Your task to perform on an android device: What's the weather going to be tomorrow? Image 0: 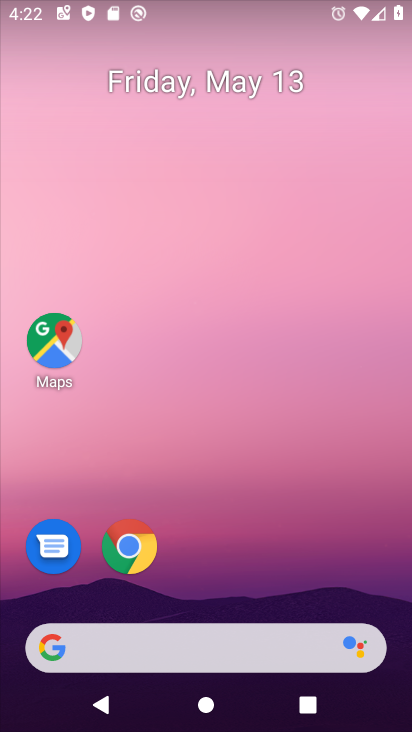
Step 0: click (179, 637)
Your task to perform on an android device: What's the weather going to be tomorrow? Image 1: 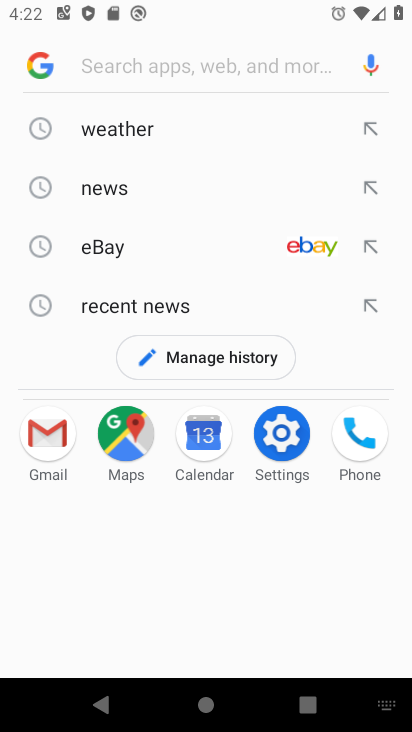
Step 1: click (158, 137)
Your task to perform on an android device: What's the weather going to be tomorrow? Image 2: 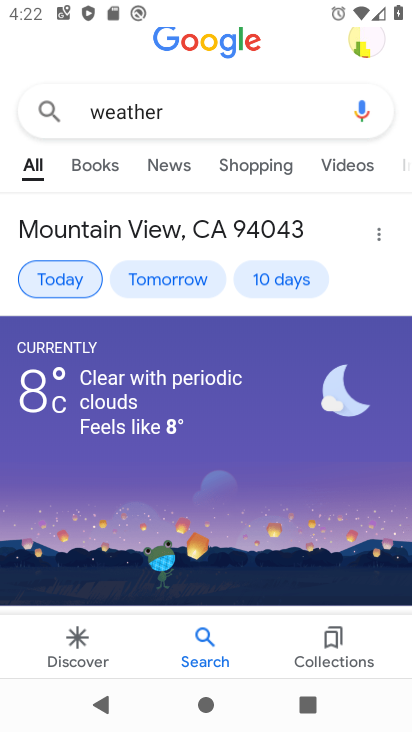
Step 2: click (189, 276)
Your task to perform on an android device: What's the weather going to be tomorrow? Image 3: 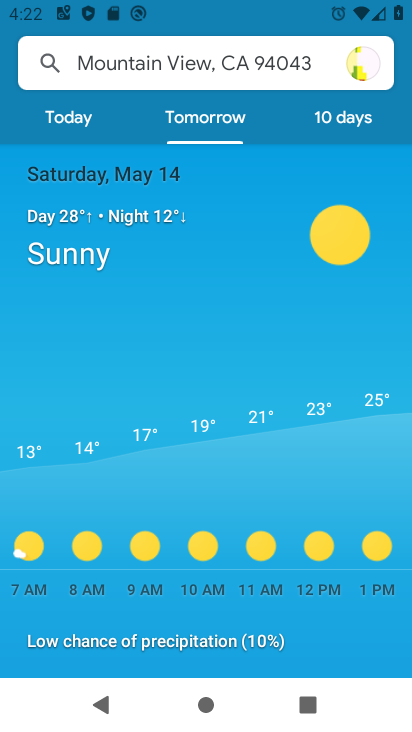
Step 3: task complete